Your task to perform on an android device: open app "Life360: Find Family & Friends" Image 0: 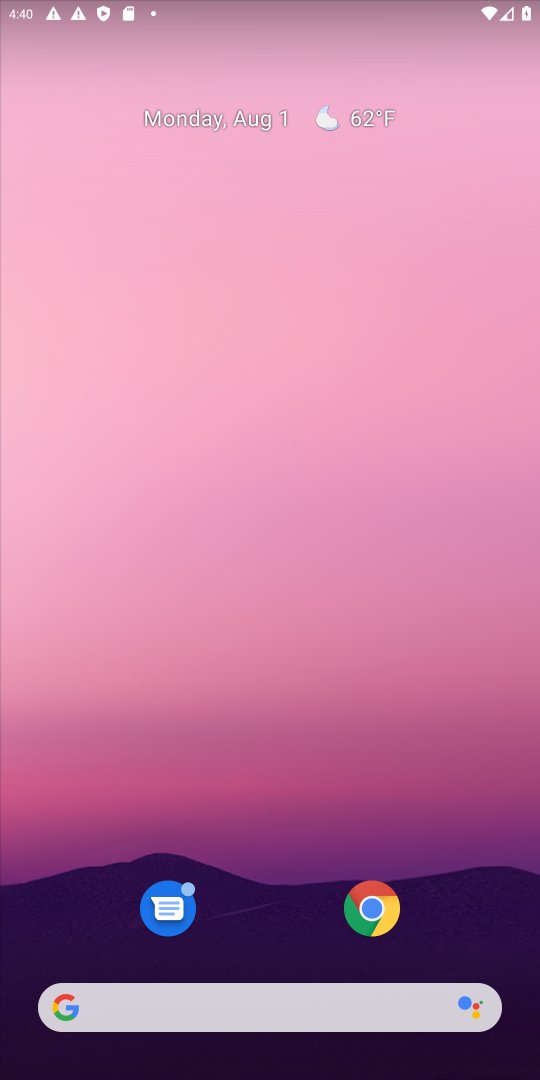
Step 0: drag from (221, 850) to (299, 263)
Your task to perform on an android device: open app "Life360: Find Family & Friends" Image 1: 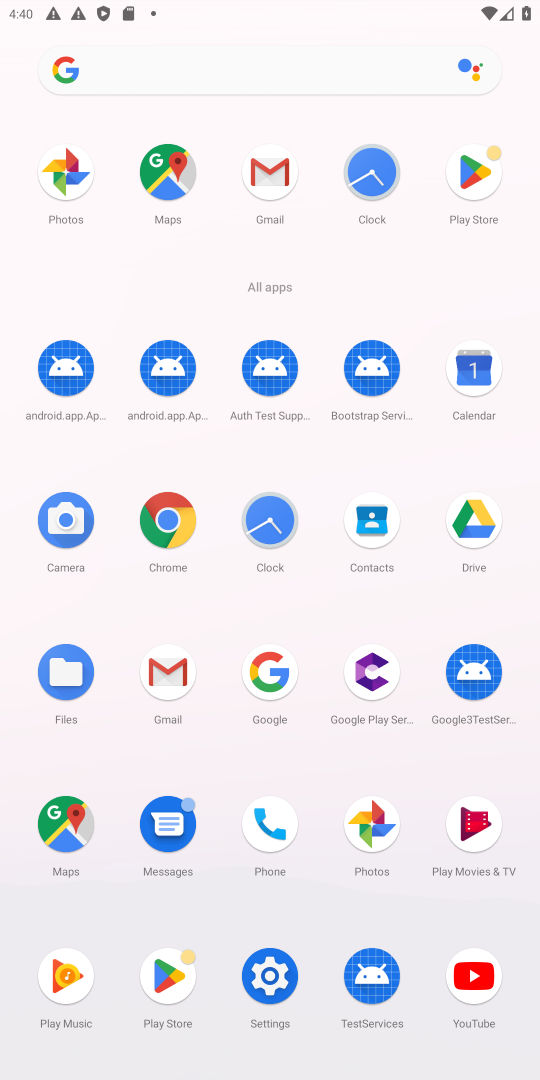
Step 1: click (496, 179)
Your task to perform on an android device: open app "Life360: Find Family & Friends" Image 2: 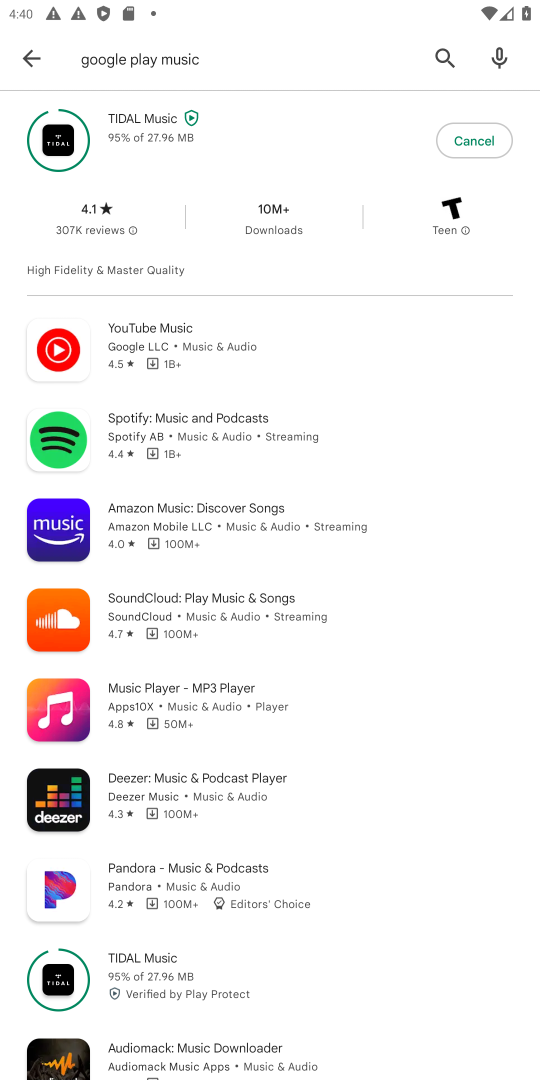
Step 2: click (27, 65)
Your task to perform on an android device: open app "Life360: Find Family & Friends" Image 3: 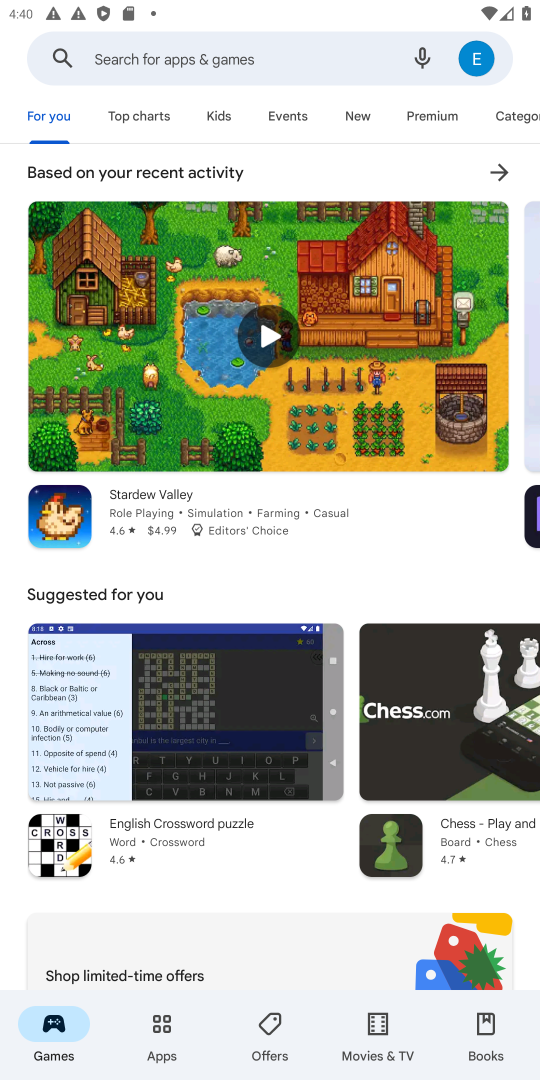
Step 3: click (216, 49)
Your task to perform on an android device: open app "Life360: Find Family & Friends" Image 4: 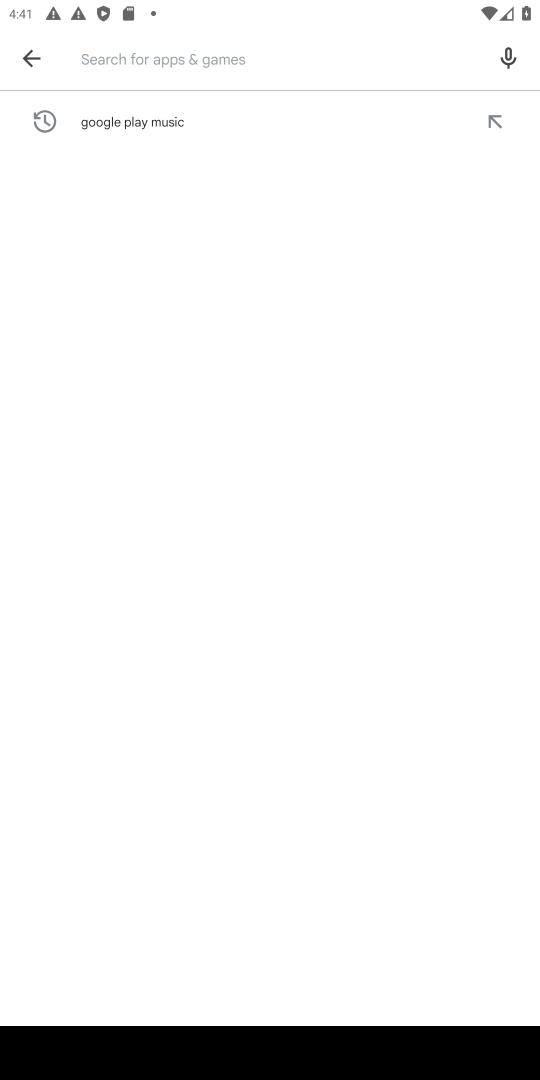
Step 4: type "Life360: Find Family & Friends"
Your task to perform on an android device: open app "Life360: Find Family & Friends" Image 5: 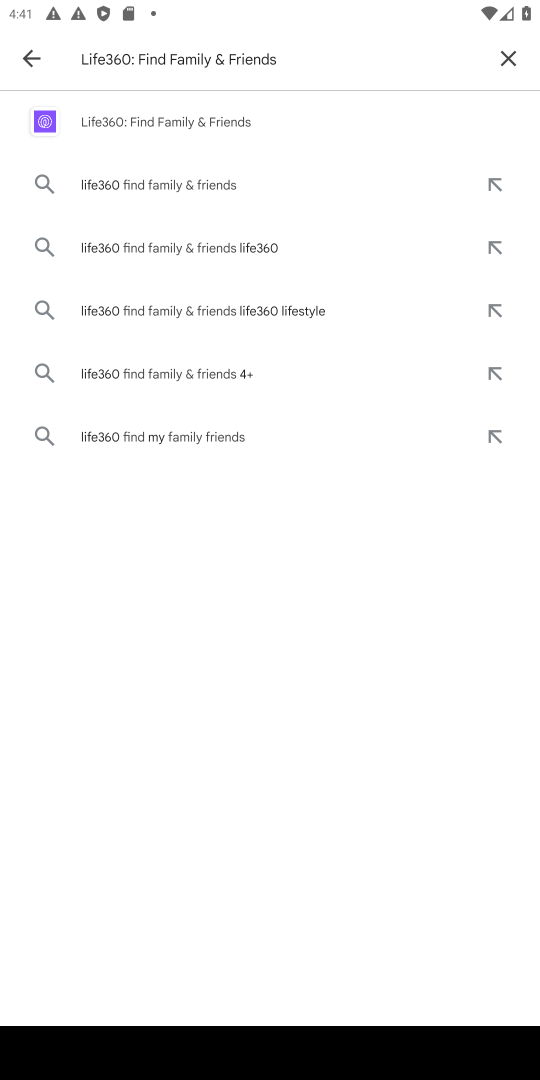
Step 5: click (233, 122)
Your task to perform on an android device: open app "Life360: Find Family & Friends" Image 6: 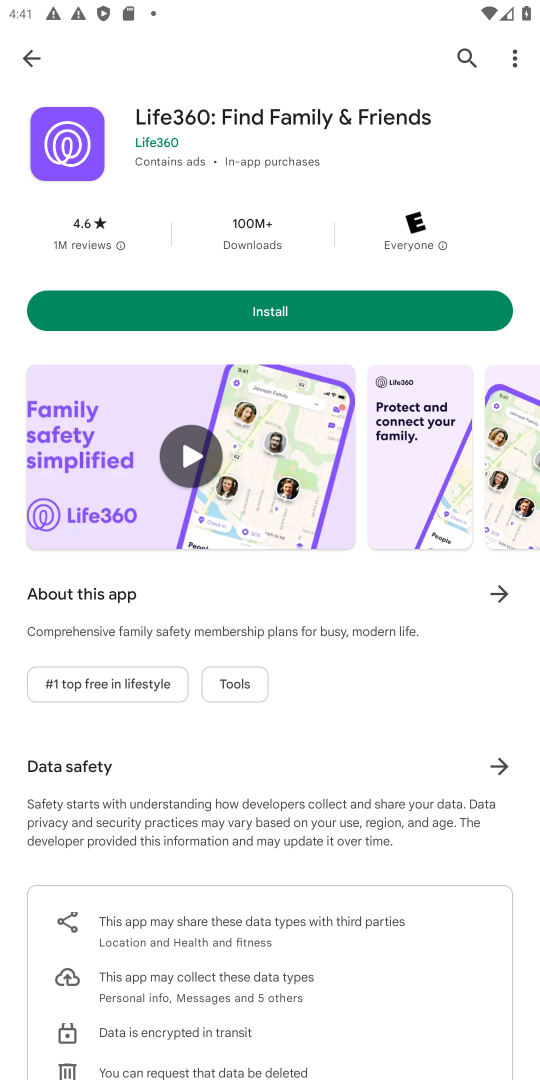
Step 6: click (258, 299)
Your task to perform on an android device: open app "Life360: Find Family & Friends" Image 7: 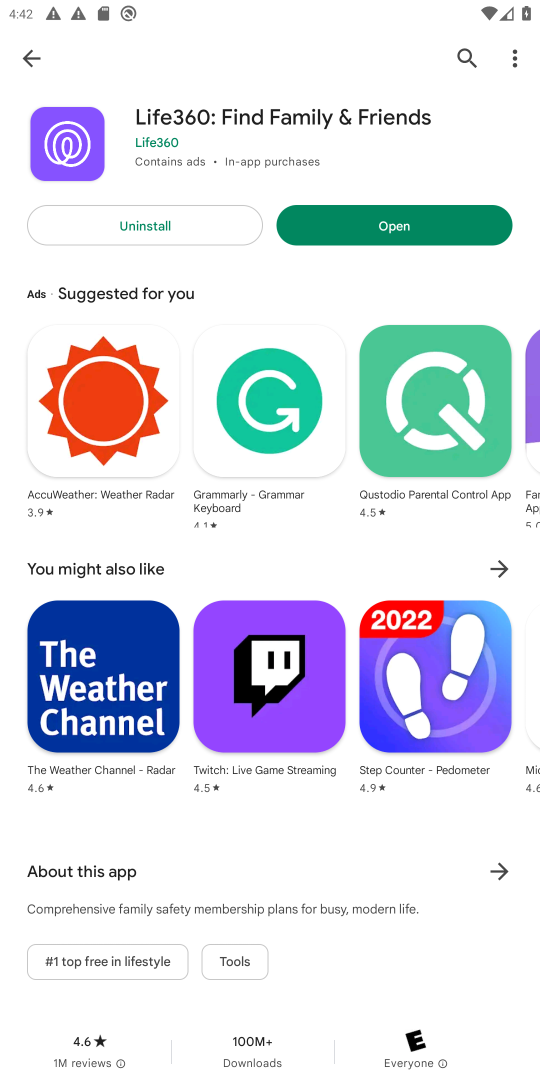
Step 7: click (369, 224)
Your task to perform on an android device: open app "Life360: Find Family & Friends" Image 8: 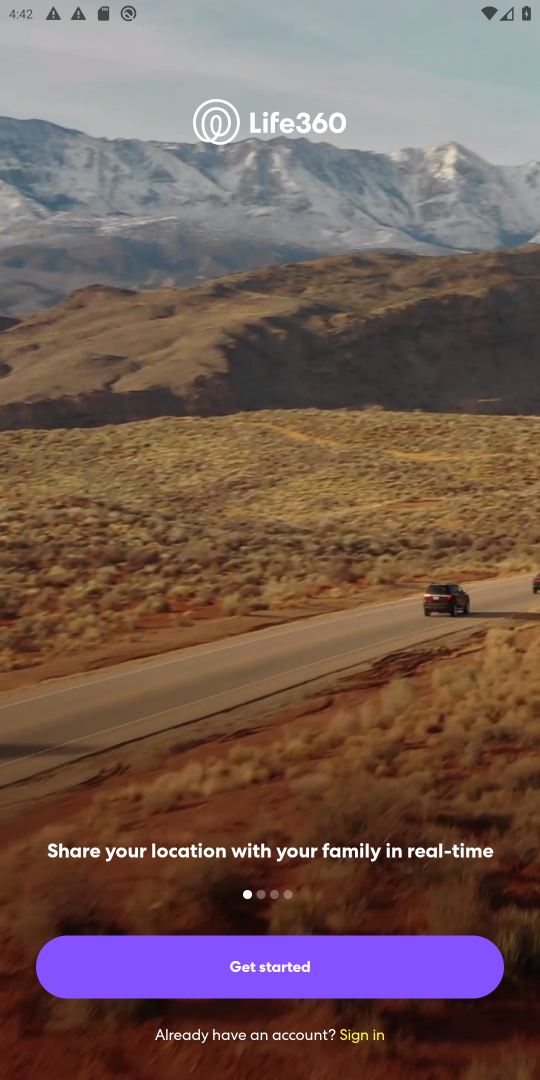
Step 8: task complete